Your task to perform on an android device: When is my next appointment? Image 0: 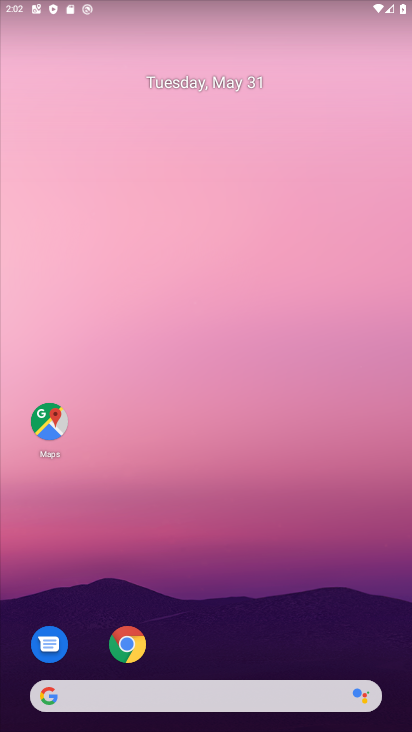
Step 0: click (315, 247)
Your task to perform on an android device: When is my next appointment? Image 1: 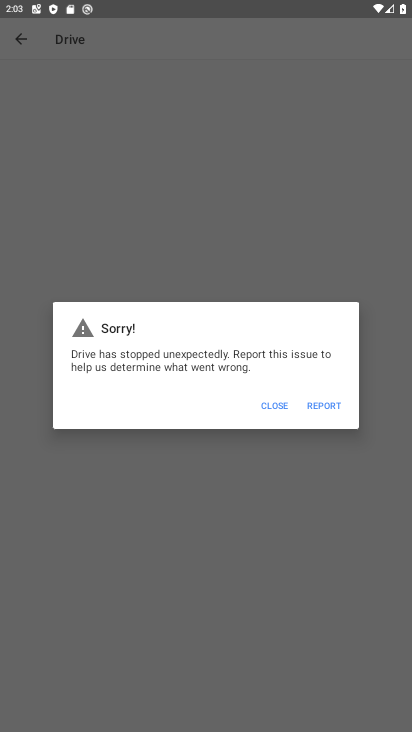
Step 1: press home button
Your task to perform on an android device: When is my next appointment? Image 2: 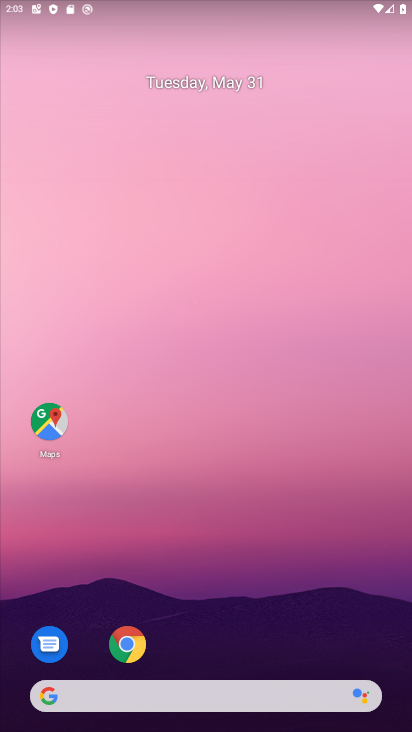
Step 2: drag from (393, 707) to (308, 210)
Your task to perform on an android device: When is my next appointment? Image 3: 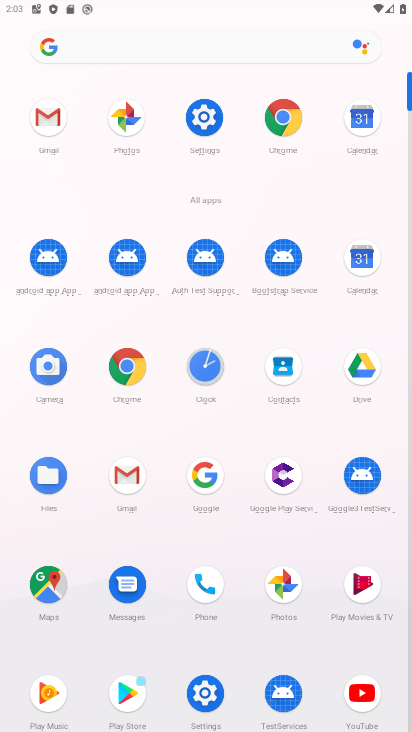
Step 3: click (351, 252)
Your task to perform on an android device: When is my next appointment? Image 4: 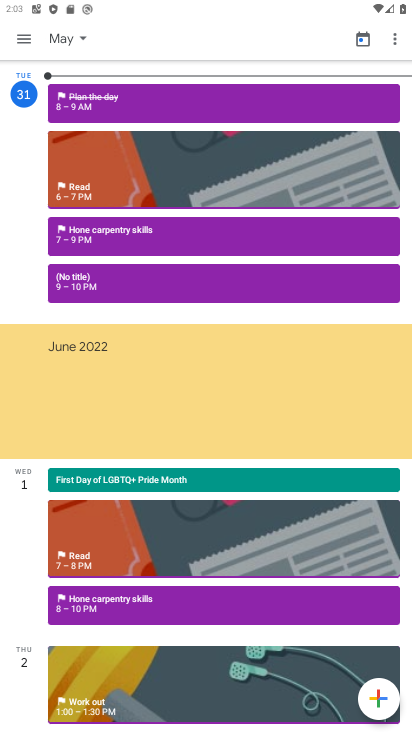
Step 4: click (28, 32)
Your task to perform on an android device: When is my next appointment? Image 5: 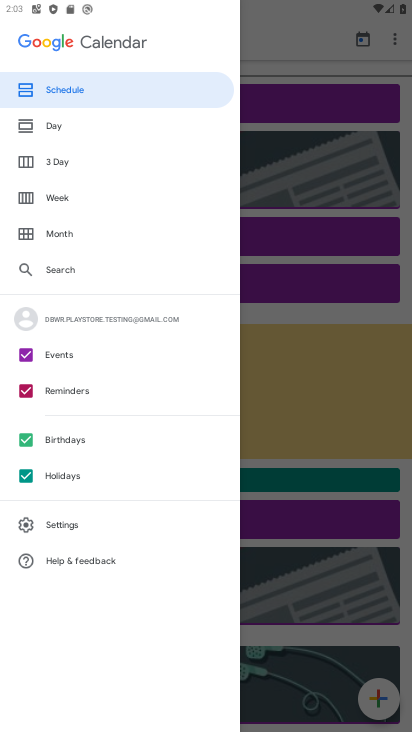
Step 5: click (67, 91)
Your task to perform on an android device: When is my next appointment? Image 6: 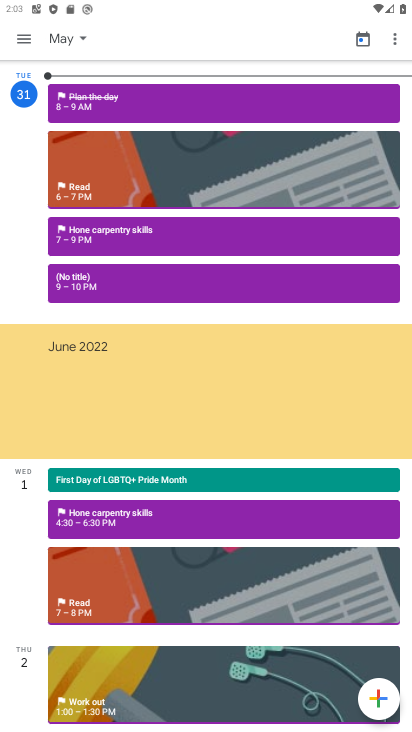
Step 6: task complete